Your task to perform on an android device: turn on location history Image 0: 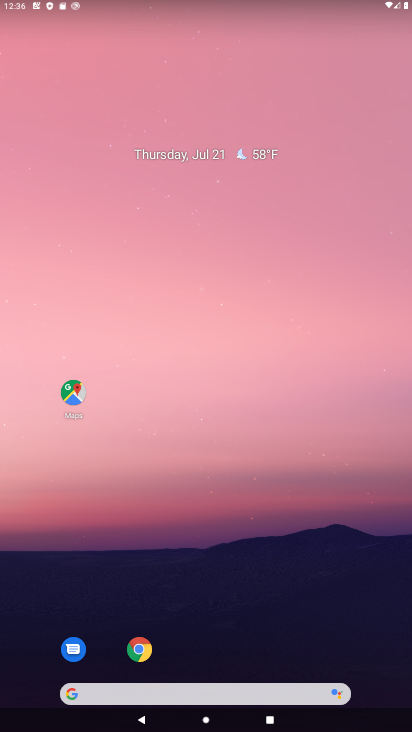
Step 0: click (71, 388)
Your task to perform on an android device: turn on location history Image 1: 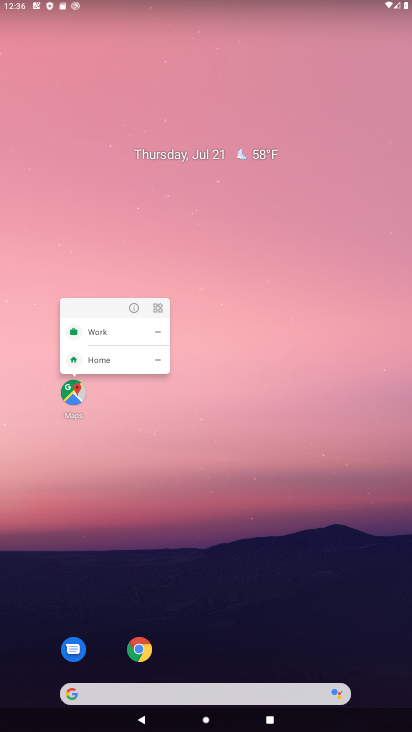
Step 1: click (70, 390)
Your task to perform on an android device: turn on location history Image 2: 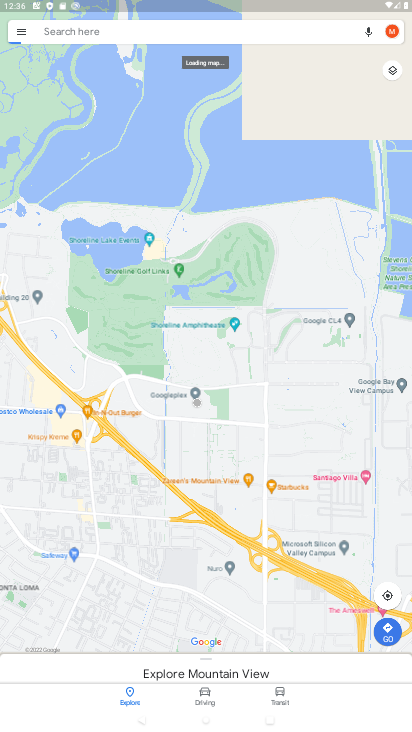
Step 2: click (23, 39)
Your task to perform on an android device: turn on location history Image 3: 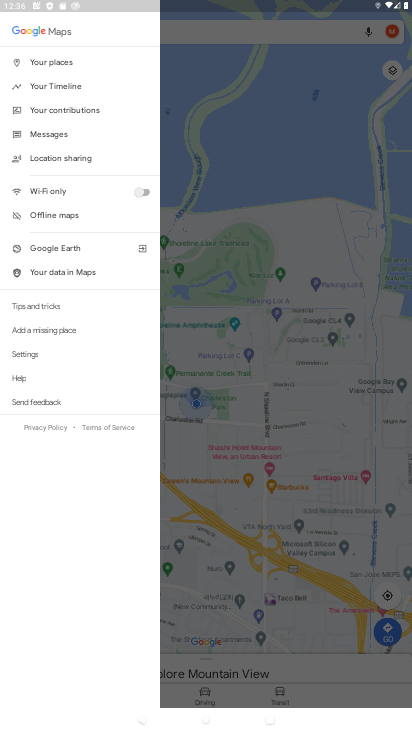
Step 3: click (36, 358)
Your task to perform on an android device: turn on location history Image 4: 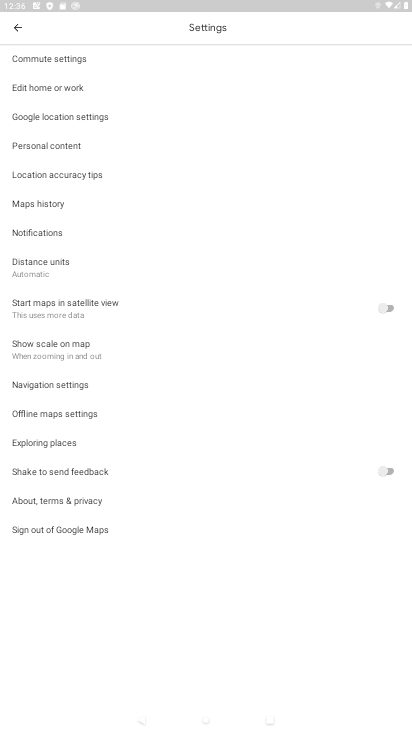
Step 4: click (43, 145)
Your task to perform on an android device: turn on location history Image 5: 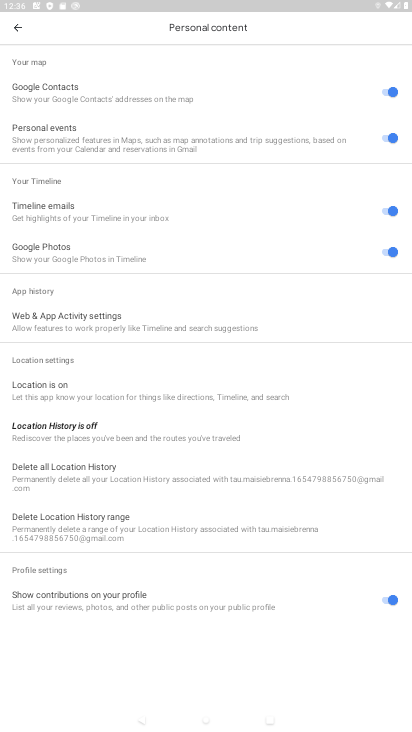
Step 5: click (61, 428)
Your task to perform on an android device: turn on location history Image 6: 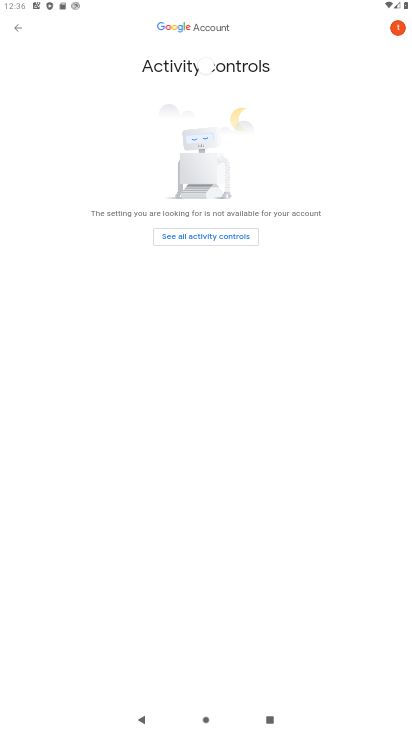
Step 6: click (211, 243)
Your task to perform on an android device: turn on location history Image 7: 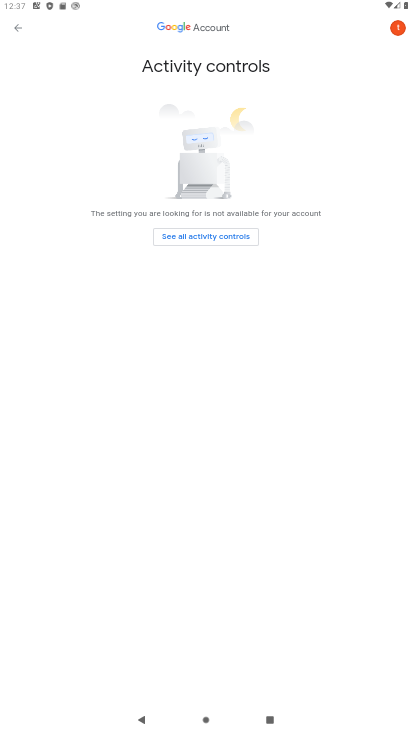
Step 7: click (206, 240)
Your task to perform on an android device: turn on location history Image 8: 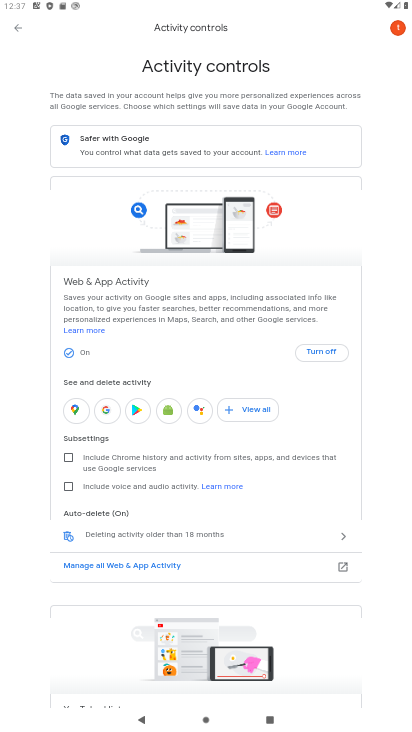
Step 8: task complete